Your task to perform on an android device: Turn on the flashlight Image 0: 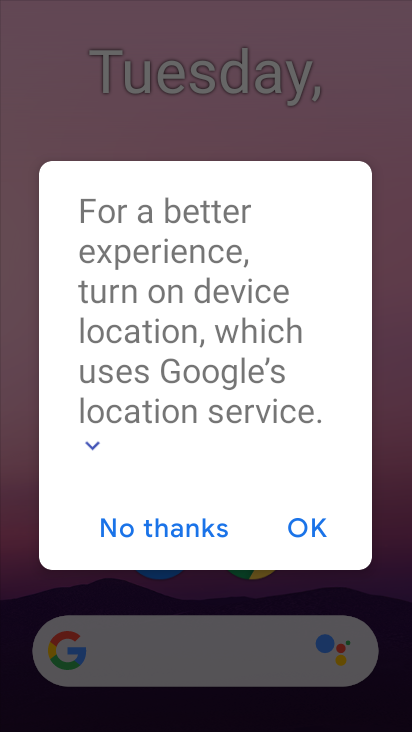
Step 0: press home button
Your task to perform on an android device: Turn on the flashlight Image 1: 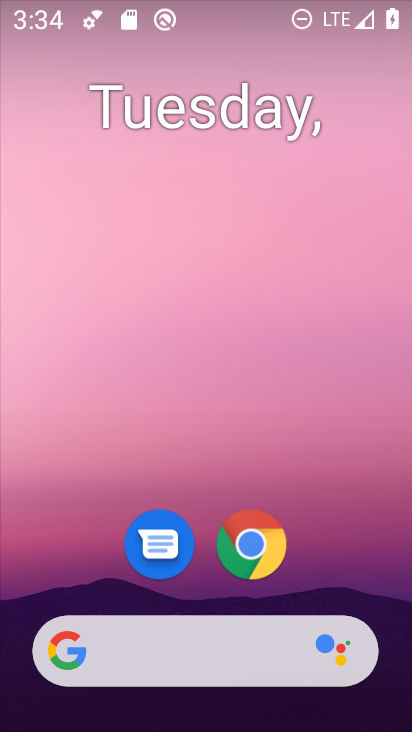
Step 1: drag from (240, 6) to (241, 375)
Your task to perform on an android device: Turn on the flashlight Image 2: 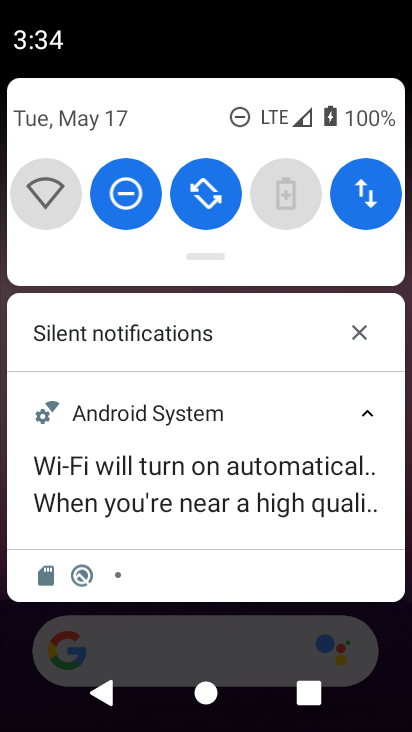
Step 2: drag from (238, 128) to (248, 363)
Your task to perform on an android device: Turn on the flashlight Image 3: 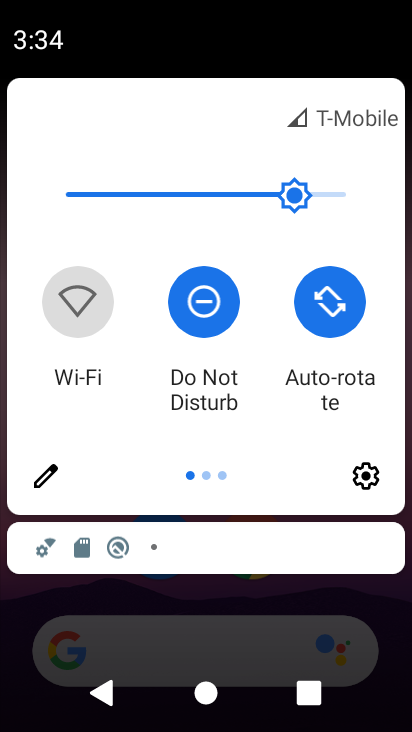
Step 3: click (41, 469)
Your task to perform on an android device: Turn on the flashlight Image 4: 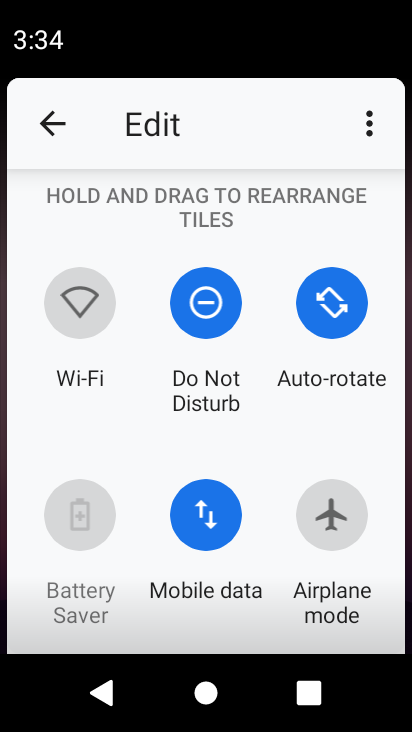
Step 4: task complete